Your task to perform on an android device: turn off location Image 0: 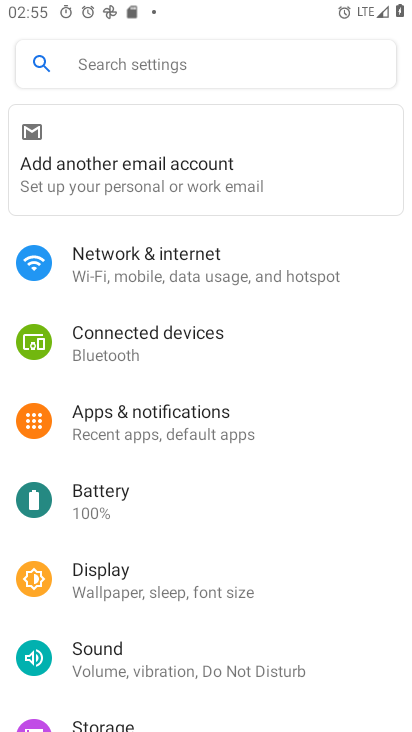
Step 0: drag from (355, 580) to (342, 498)
Your task to perform on an android device: turn off location Image 1: 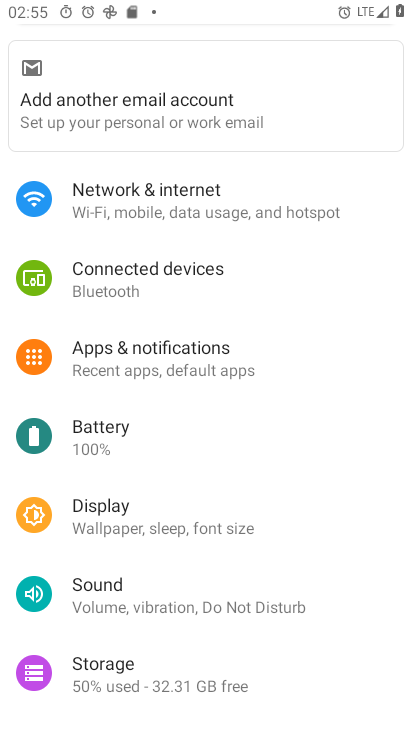
Step 1: drag from (343, 602) to (341, 510)
Your task to perform on an android device: turn off location Image 2: 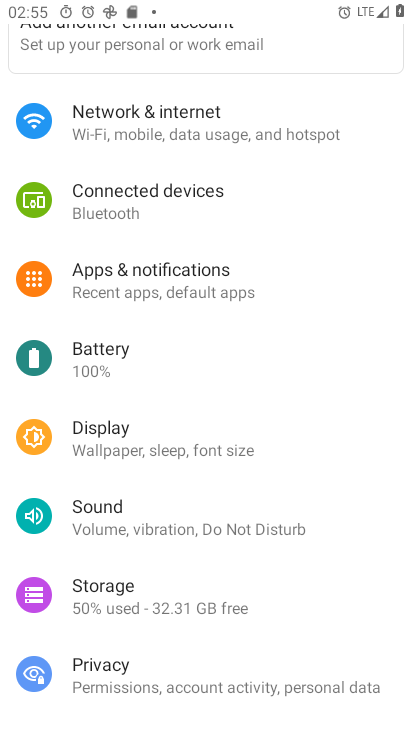
Step 2: drag from (326, 577) to (323, 456)
Your task to perform on an android device: turn off location Image 3: 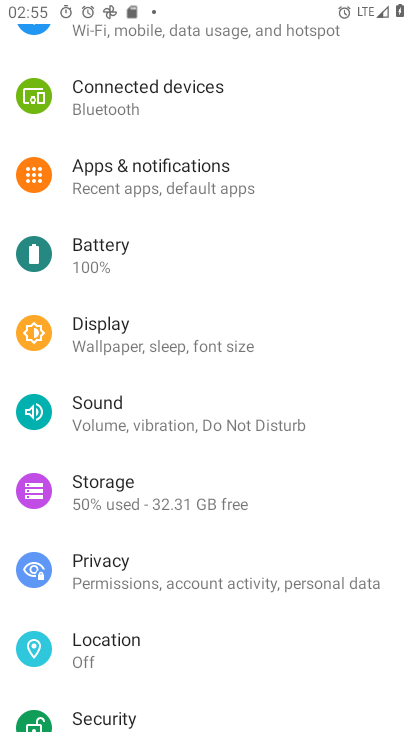
Step 3: drag from (332, 610) to (346, 491)
Your task to perform on an android device: turn off location Image 4: 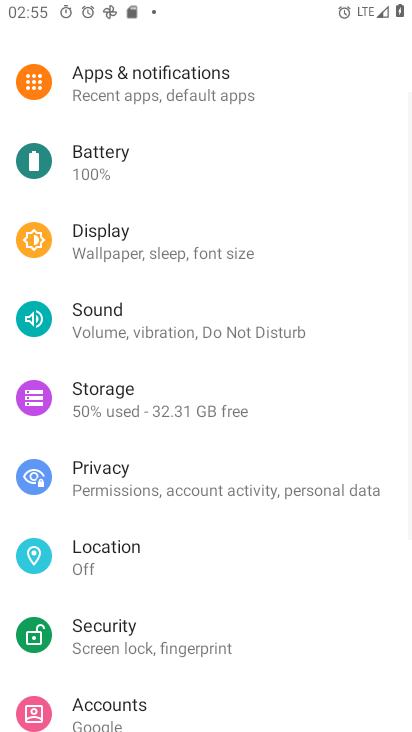
Step 4: drag from (349, 606) to (356, 494)
Your task to perform on an android device: turn off location Image 5: 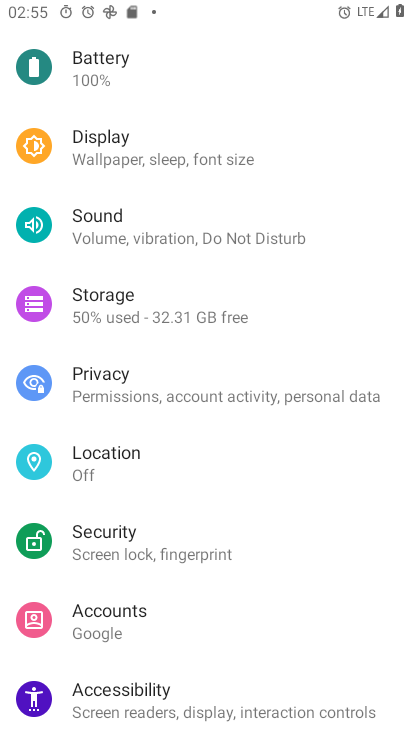
Step 5: click (256, 464)
Your task to perform on an android device: turn off location Image 6: 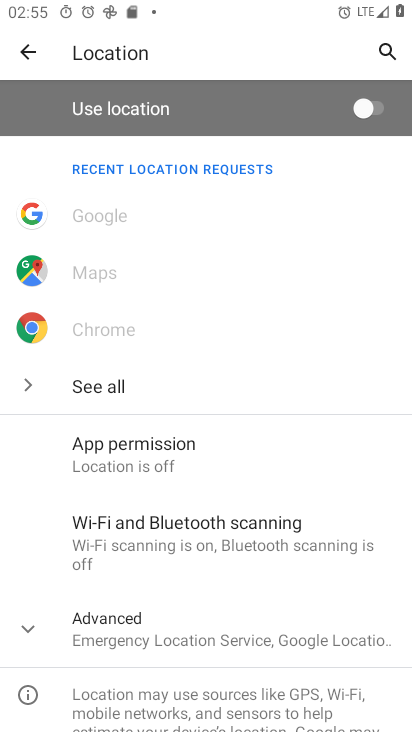
Step 6: task complete